Your task to perform on an android device: Open accessibility settings Image 0: 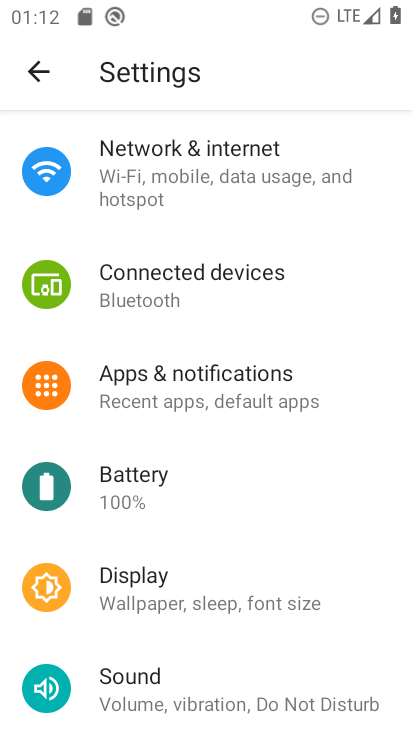
Step 0: drag from (237, 612) to (251, 18)
Your task to perform on an android device: Open accessibility settings Image 1: 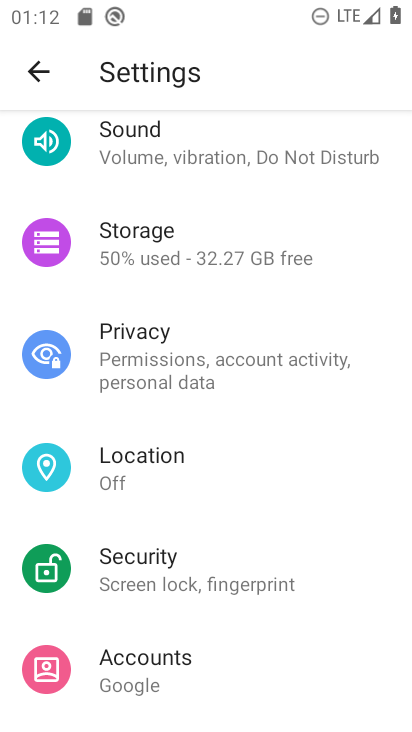
Step 1: drag from (253, 627) to (267, 104)
Your task to perform on an android device: Open accessibility settings Image 2: 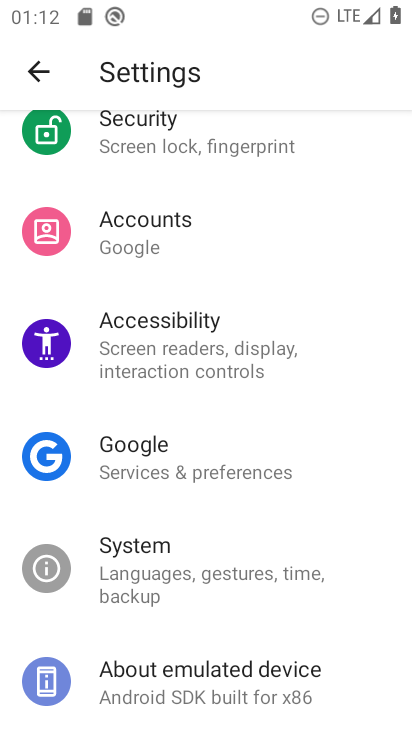
Step 2: click (210, 343)
Your task to perform on an android device: Open accessibility settings Image 3: 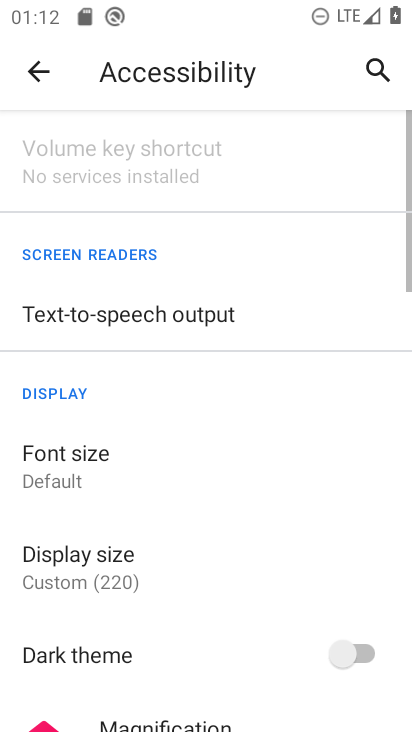
Step 3: task complete